Your task to perform on an android device: change the clock display to digital Image 0: 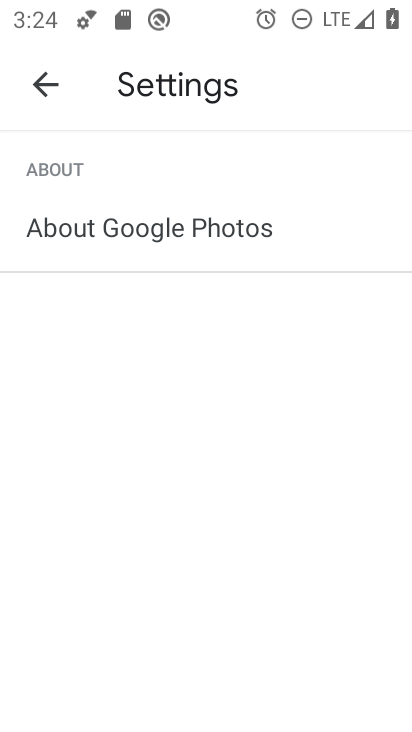
Step 0: press home button
Your task to perform on an android device: change the clock display to digital Image 1: 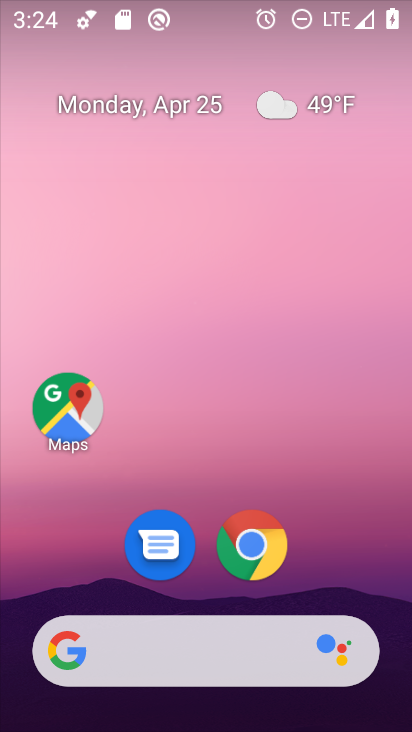
Step 1: drag from (317, 545) to (152, 71)
Your task to perform on an android device: change the clock display to digital Image 2: 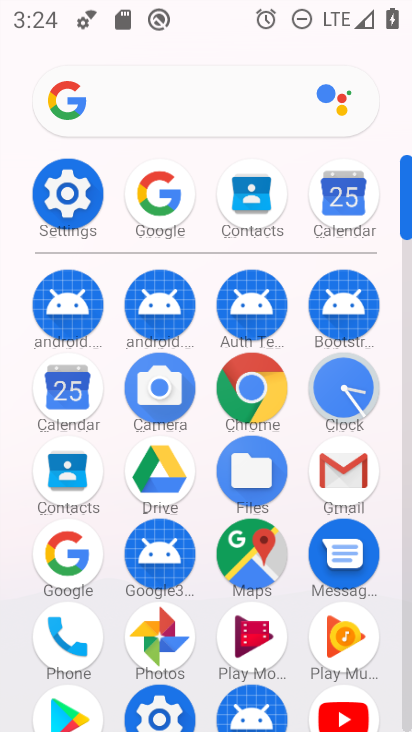
Step 2: click (368, 387)
Your task to perform on an android device: change the clock display to digital Image 3: 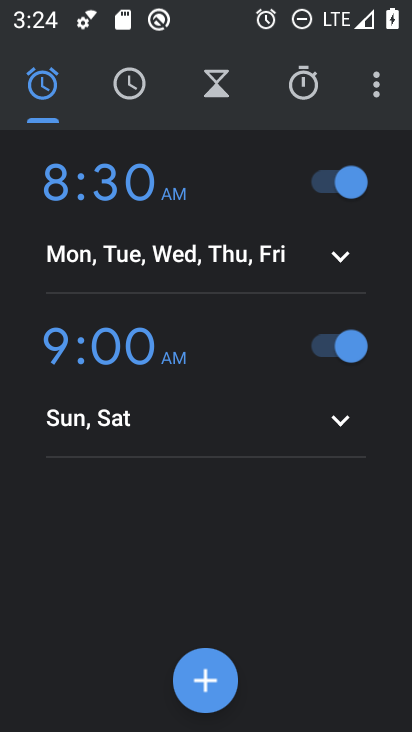
Step 3: click (375, 98)
Your task to perform on an android device: change the clock display to digital Image 4: 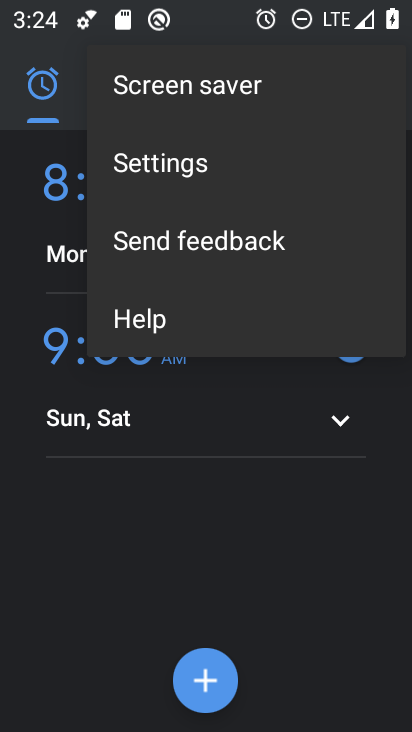
Step 4: click (257, 158)
Your task to perform on an android device: change the clock display to digital Image 5: 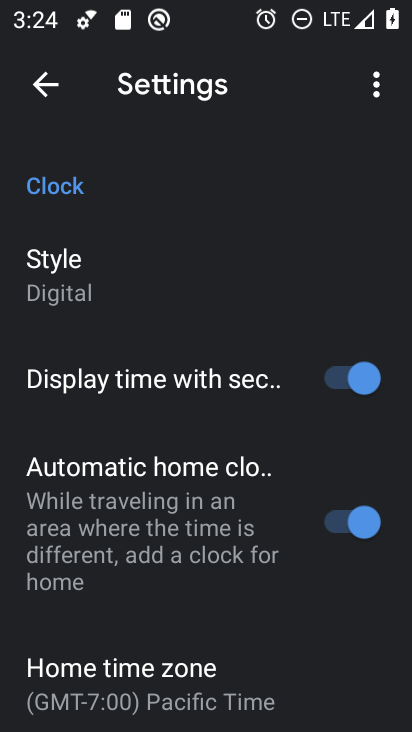
Step 5: click (189, 266)
Your task to perform on an android device: change the clock display to digital Image 6: 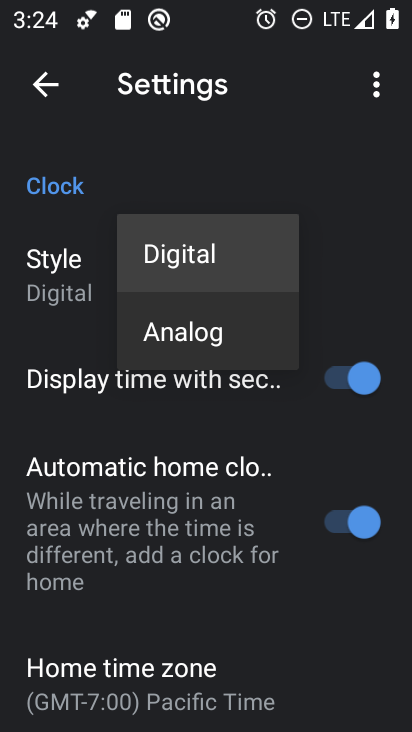
Step 6: click (203, 267)
Your task to perform on an android device: change the clock display to digital Image 7: 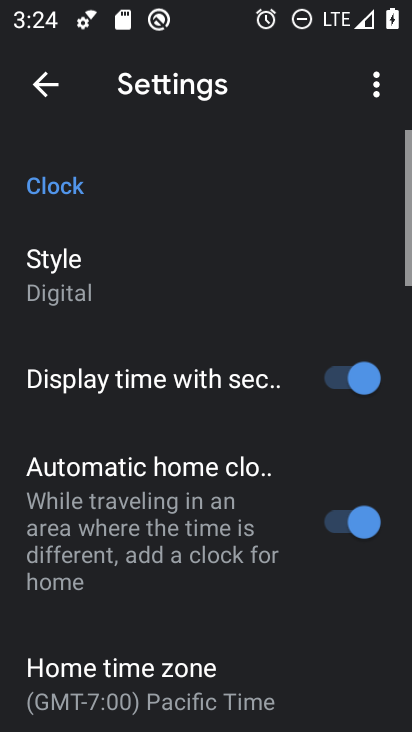
Step 7: task complete